Your task to perform on an android device: Open eBay Image 0: 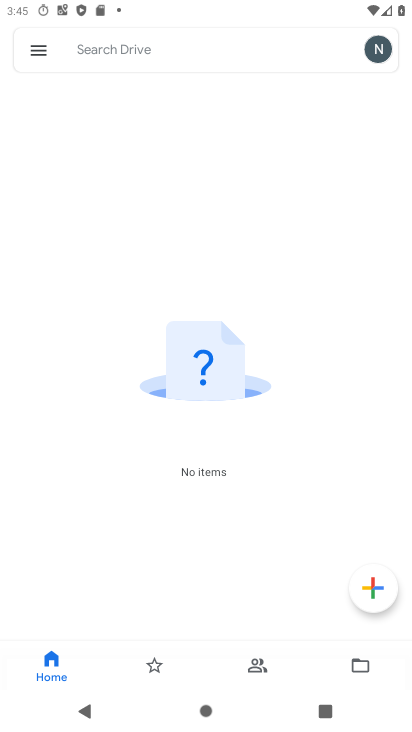
Step 0: press home button
Your task to perform on an android device: Open eBay Image 1: 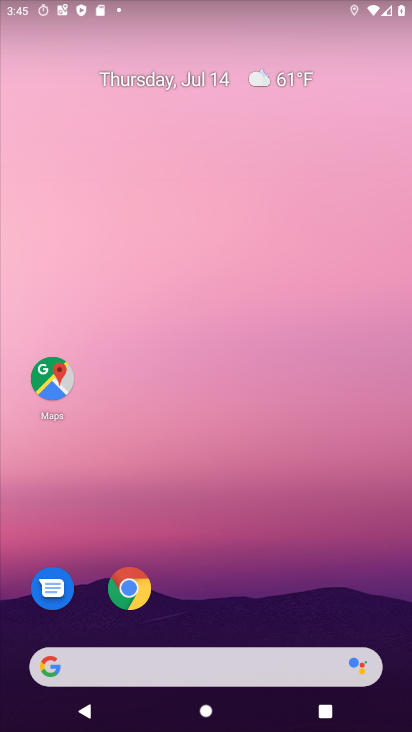
Step 1: click (130, 584)
Your task to perform on an android device: Open eBay Image 2: 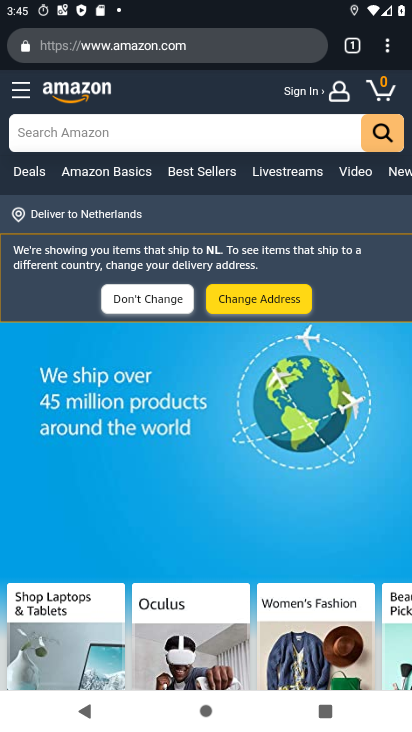
Step 2: click (223, 47)
Your task to perform on an android device: Open eBay Image 3: 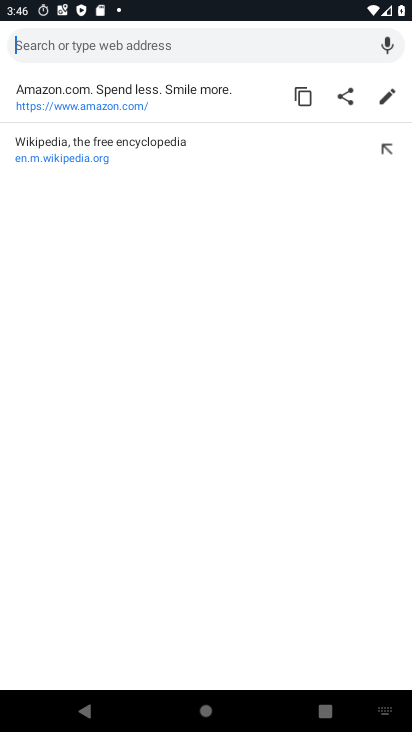
Step 3: type "eBay"
Your task to perform on an android device: Open eBay Image 4: 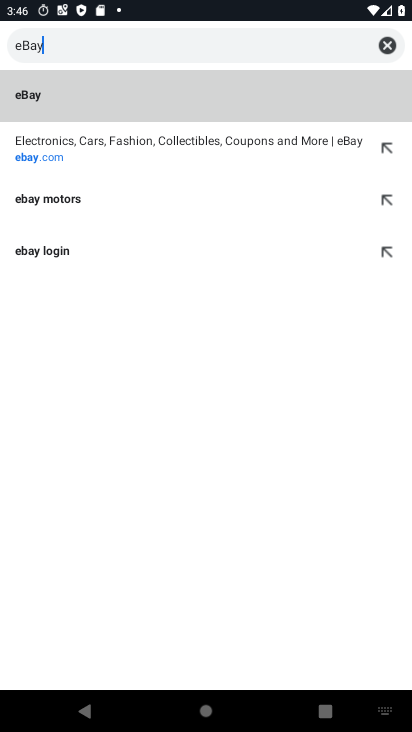
Step 4: type ""
Your task to perform on an android device: Open eBay Image 5: 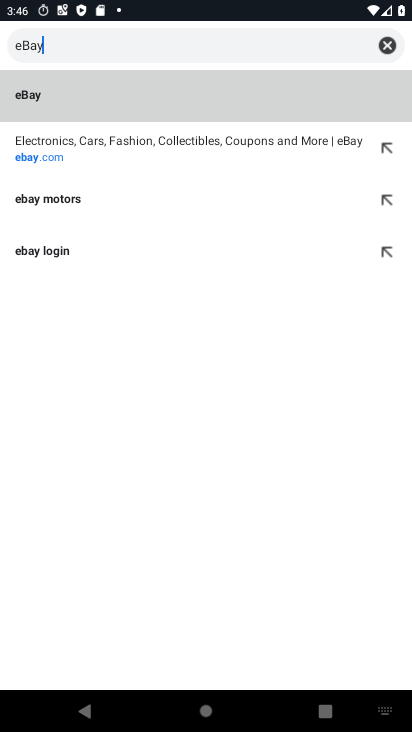
Step 5: click (30, 92)
Your task to perform on an android device: Open eBay Image 6: 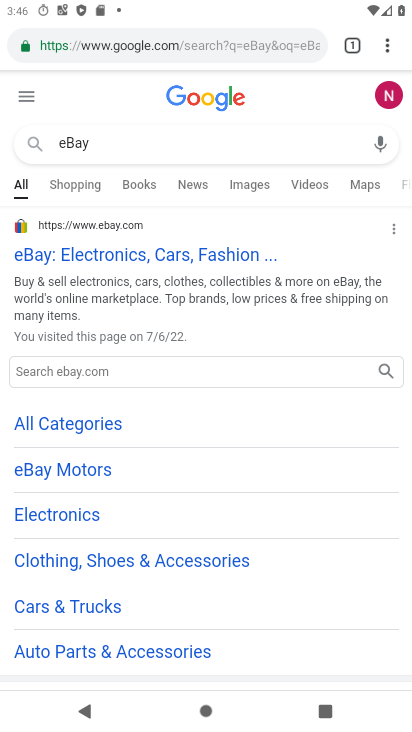
Step 6: click (105, 259)
Your task to perform on an android device: Open eBay Image 7: 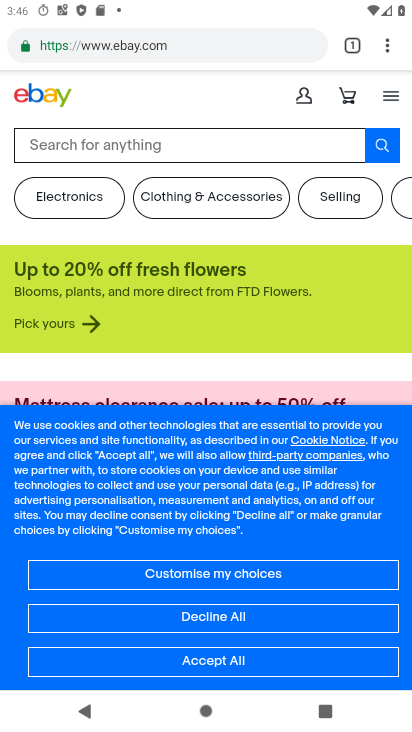
Step 7: click (211, 669)
Your task to perform on an android device: Open eBay Image 8: 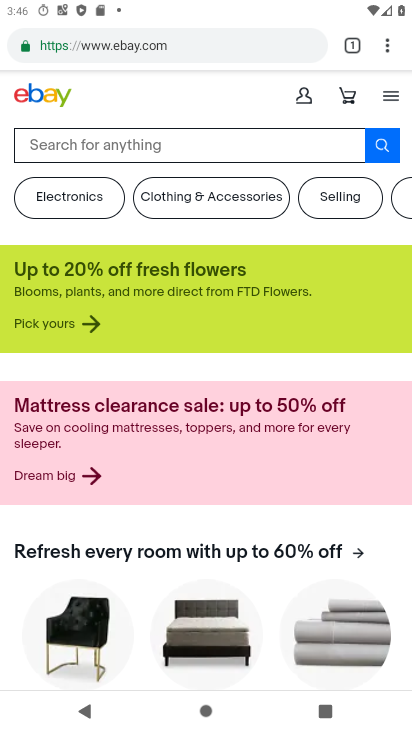
Step 8: task complete